Your task to perform on an android device: turn off priority inbox in the gmail app Image 0: 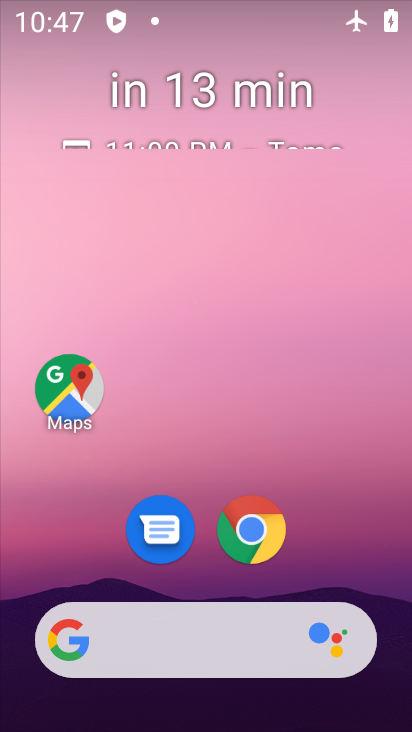
Step 0: drag from (371, 590) to (179, 125)
Your task to perform on an android device: turn off priority inbox in the gmail app Image 1: 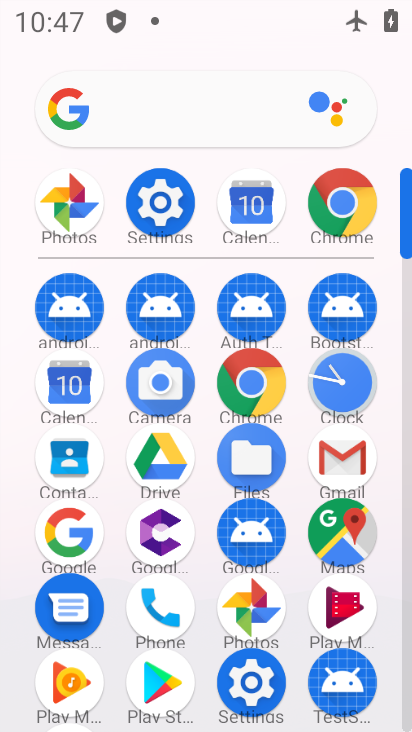
Step 1: click (326, 451)
Your task to perform on an android device: turn off priority inbox in the gmail app Image 2: 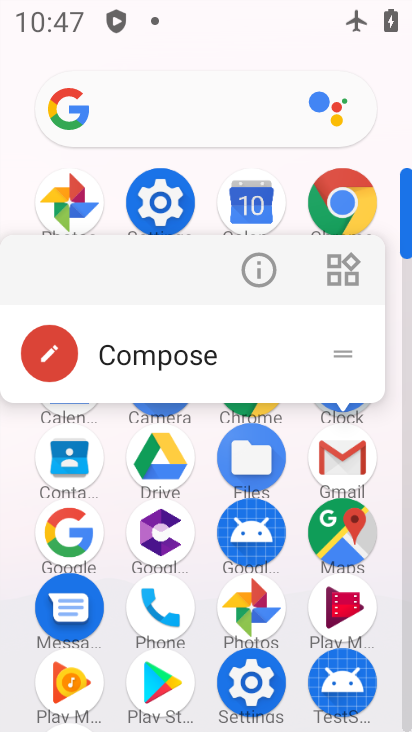
Step 2: click (326, 451)
Your task to perform on an android device: turn off priority inbox in the gmail app Image 3: 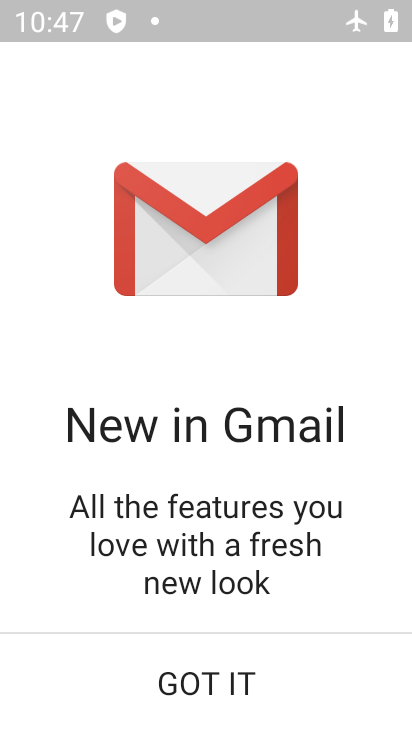
Step 3: click (211, 677)
Your task to perform on an android device: turn off priority inbox in the gmail app Image 4: 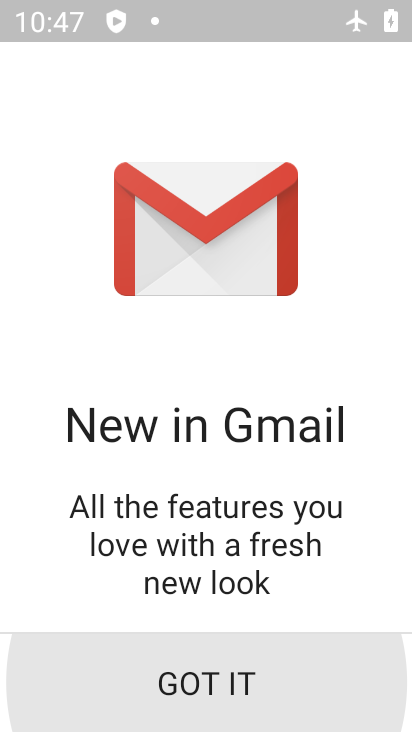
Step 4: click (211, 677)
Your task to perform on an android device: turn off priority inbox in the gmail app Image 5: 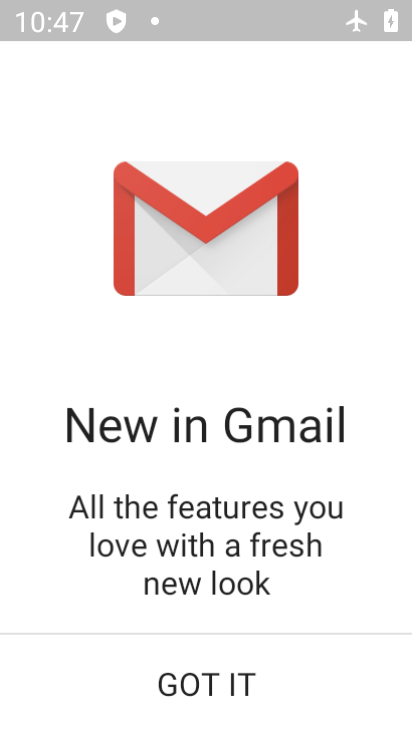
Step 5: click (212, 676)
Your task to perform on an android device: turn off priority inbox in the gmail app Image 6: 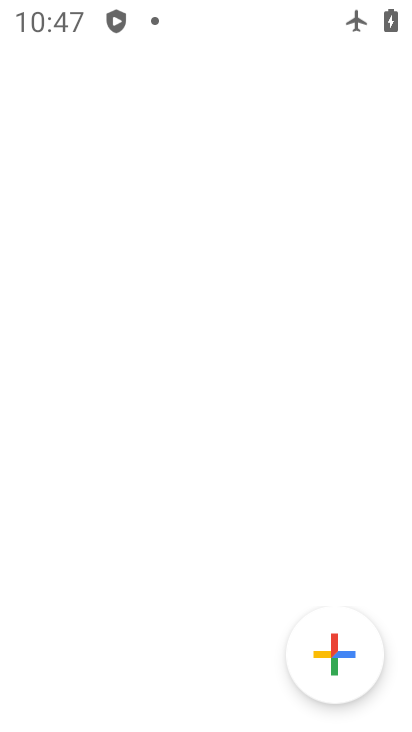
Step 6: click (210, 661)
Your task to perform on an android device: turn off priority inbox in the gmail app Image 7: 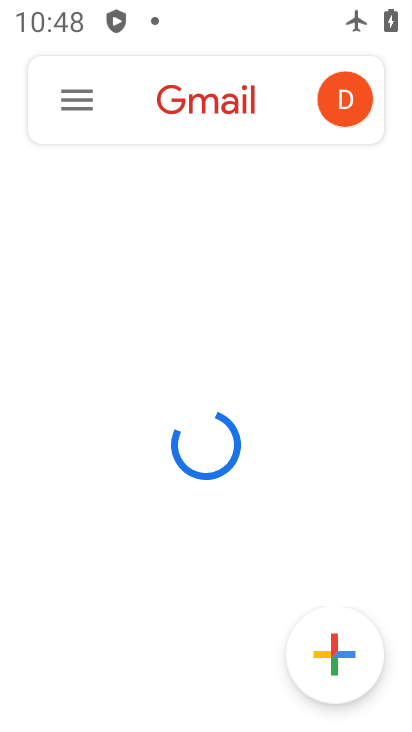
Step 7: click (86, 97)
Your task to perform on an android device: turn off priority inbox in the gmail app Image 8: 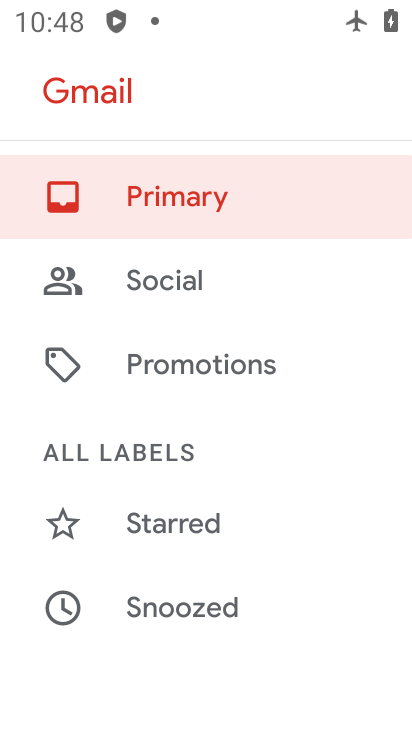
Step 8: click (159, 441)
Your task to perform on an android device: turn off priority inbox in the gmail app Image 9: 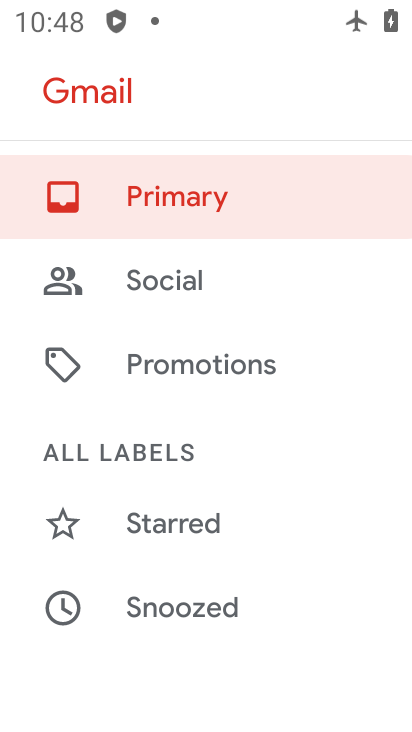
Step 9: drag from (297, 579) to (169, 67)
Your task to perform on an android device: turn off priority inbox in the gmail app Image 10: 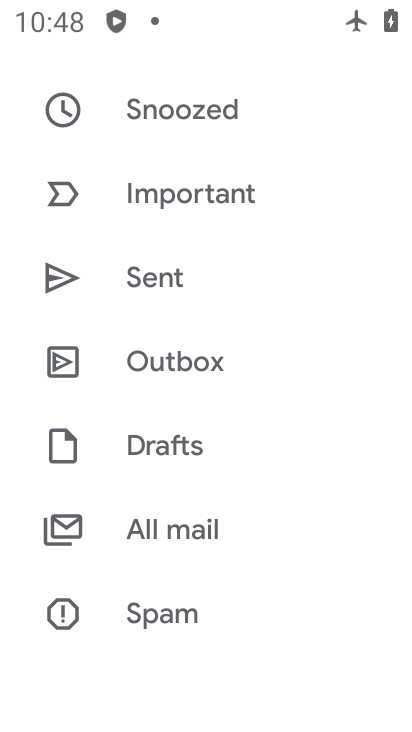
Step 10: drag from (206, 557) to (137, 54)
Your task to perform on an android device: turn off priority inbox in the gmail app Image 11: 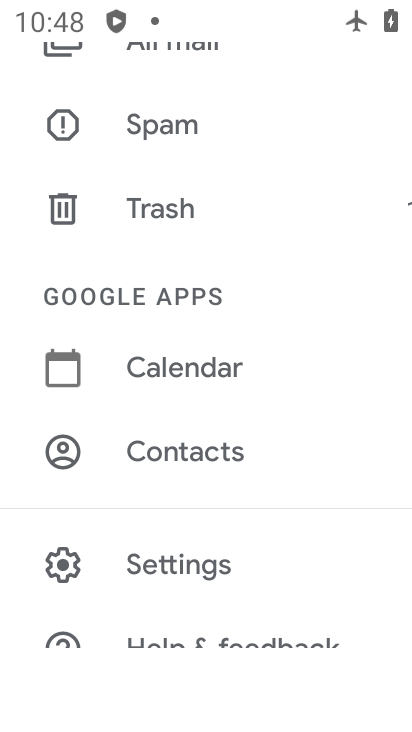
Step 11: click (172, 562)
Your task to perform on an android device: turn off priority inbox in the gmail app Image 12: 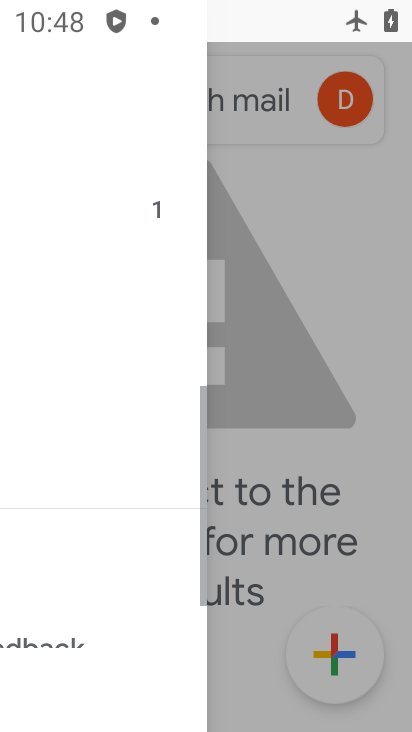
Step 12: click (172, 561)
Your task to perform on an android device: turn off priority inbox in the gmail app Image 13: 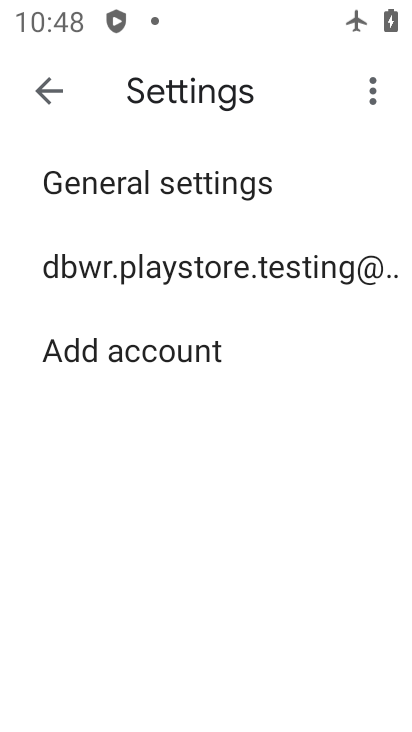
Step 13: click (113, 265)
Your task to perform on an android device: turn off priority inbox in the gmail app Image 14: 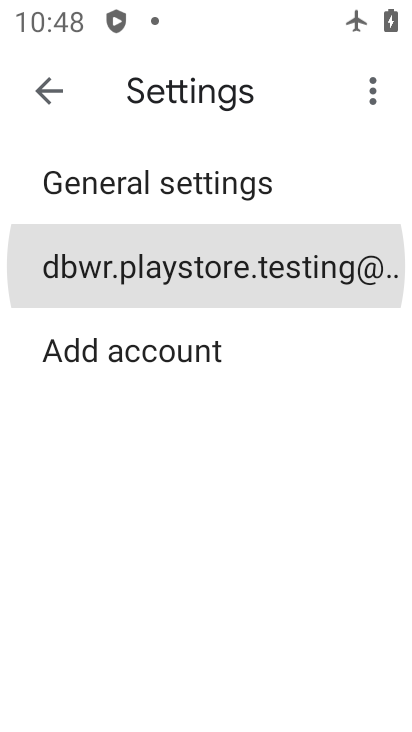
Step 14: click (116, 261)
Your task to perform on an android device: turn off priority inbox in the gmail app Image 15: 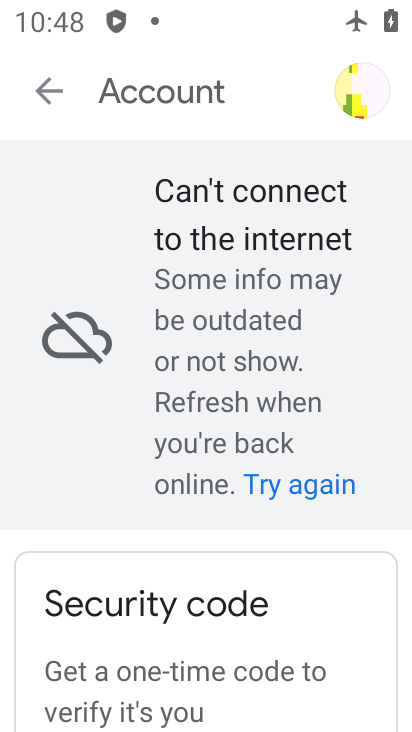
Step 15: click (50, 86)
Your task to perform on an android device: turn off priority inbox in the gmail app Image 16: 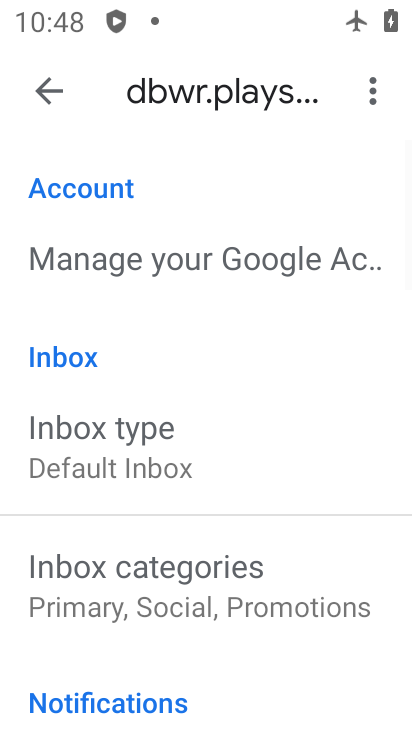
Step 16: drag from (204, 595) to (217, 170)
Your task to perform on an android device: turn off priority inbox in the gmail app Image 17: 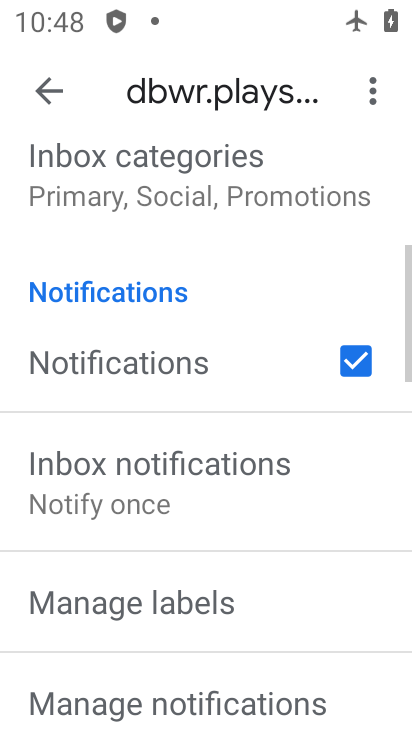
Step 17: drag from (222, 609) to (178, 163)
Your task to perform on an android device: turn off priority inbox in the gmail app Image 18: 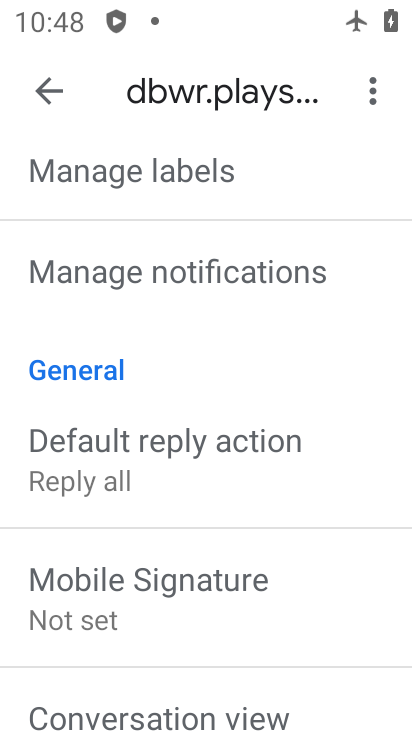
Step 18: drag from (84, 280) to (215, 662)
Your task to perform on an android device: turn off priority inbox in the gmail app Image 19: 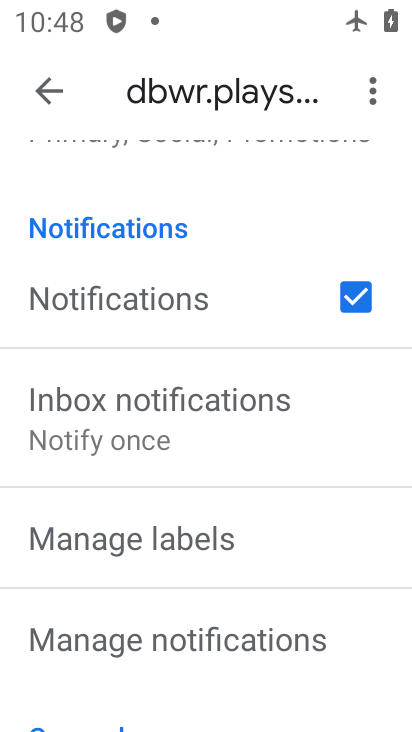
Step 19: drag from (170, 267) to (175, 595)
Your task to perform on an android device: turn off priority inbox in the gmail app Image 20: 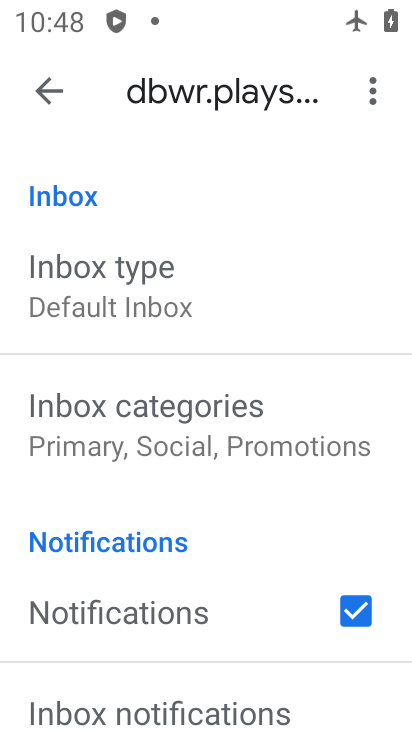
Step 20: click (100, 315)
Your task to perform on an android device: turn off priority inbox in the gmail app Image 21: 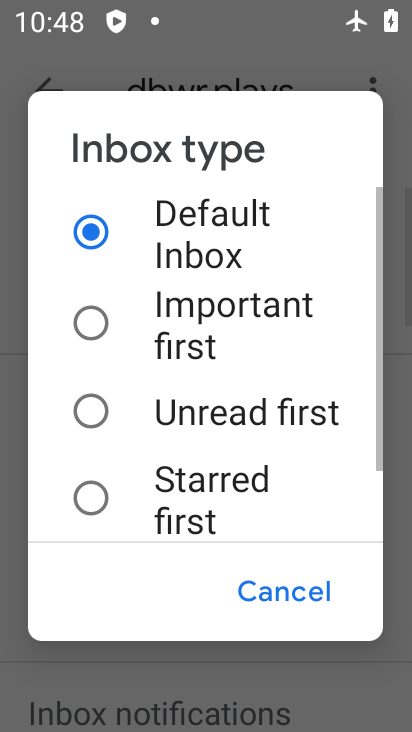
Step 21: click (91, 490)
Your task to perform on an android device: turn off priority inbox in the gmail app Image 22: 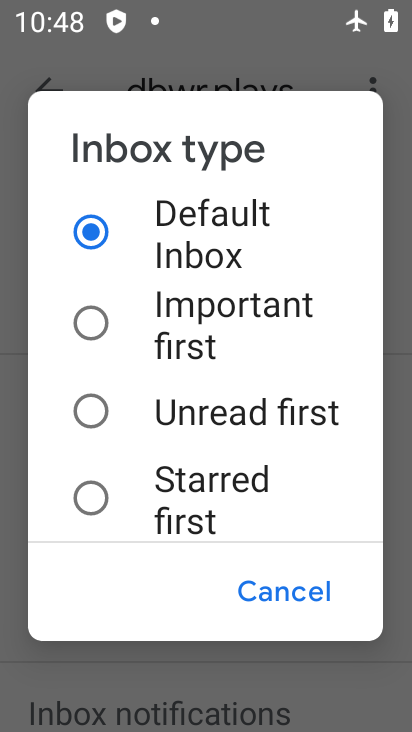
Step 22: click (92, 500)
Your task to perform on an android device: turn off priority inbox in the gmail app Image 23: 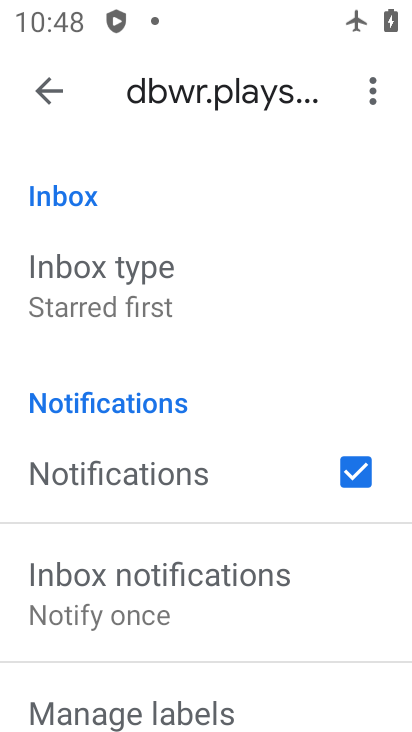
Step 23: click (72, 284)
Your task to perform on an android device: turn off priority inbox in the gmail app Image 24: 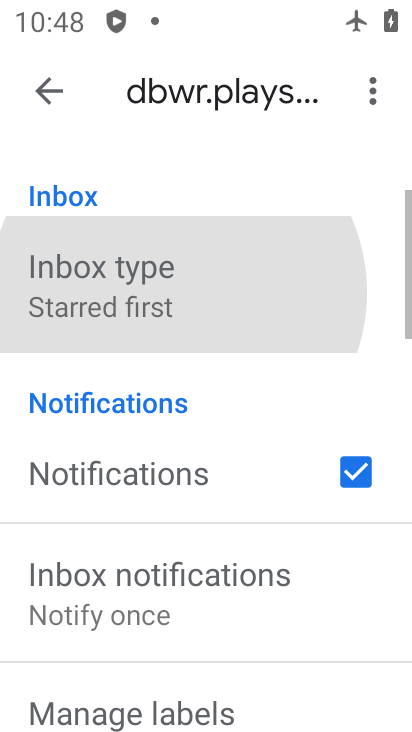
Step 24: click (73, 284)
Your task to perform on an android device: turn off priority inbox in the gmail app Image 25: 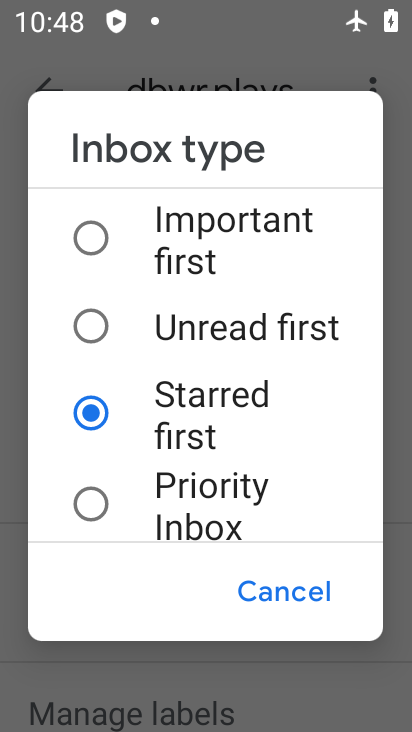
Step 25: click (84, 500)
Your task to perform on an android device: turn off priority inbox in the gmail app Image 26: 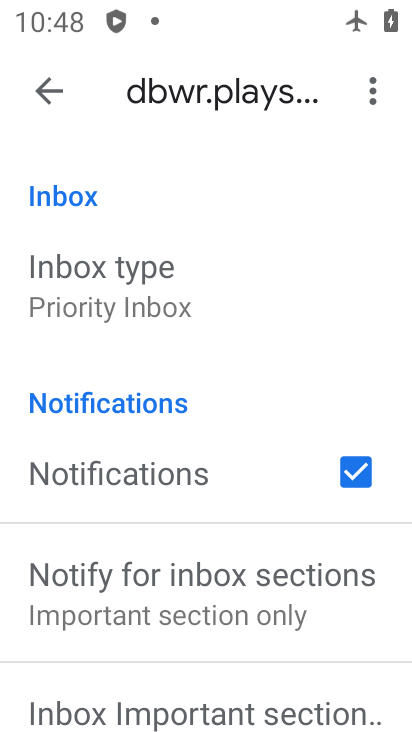
Step 26: task complete